Your task to perform on an android device: turn on data saver in the chrome app Image 0: 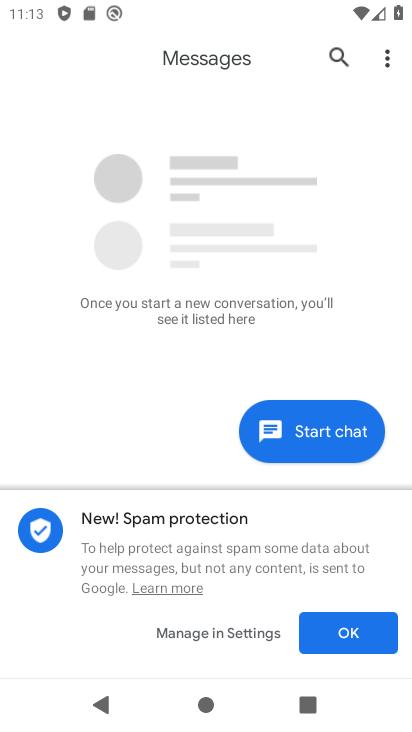
Step 0: press home button
Your task to perform on an android device: turn on data saver in the chrome app Image 1: 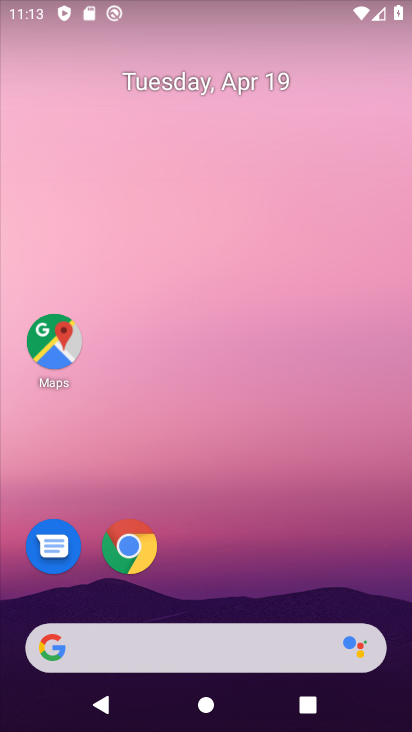
Step 1: drag from (244, 590) to (239, 91)
Your task to perform on an android device: turn on data saver in the chrome app Image 2: 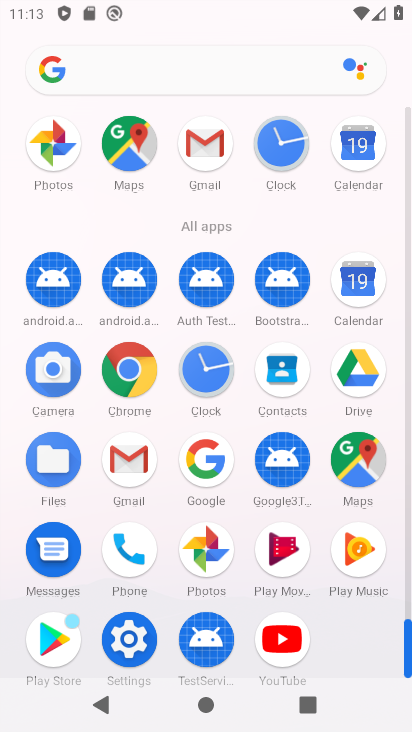
Step 2: click (139, 381)
Your task to perform on an android device: turn on data saver in the chrome app Image 3: 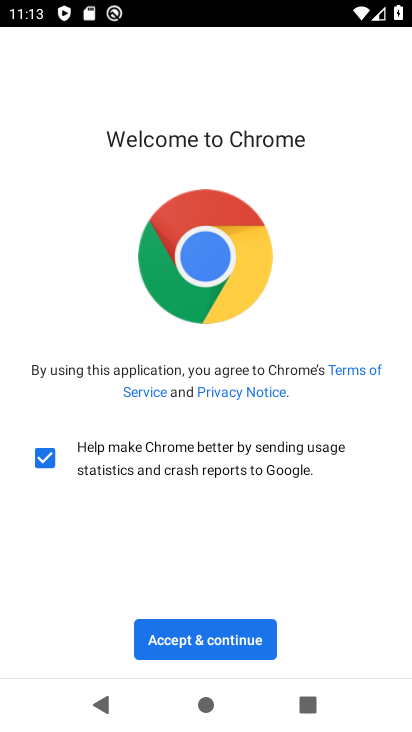
Step 3: click (223, 646)
Your task to perform on an android device: turn on data saver in the chrome app Image 4: 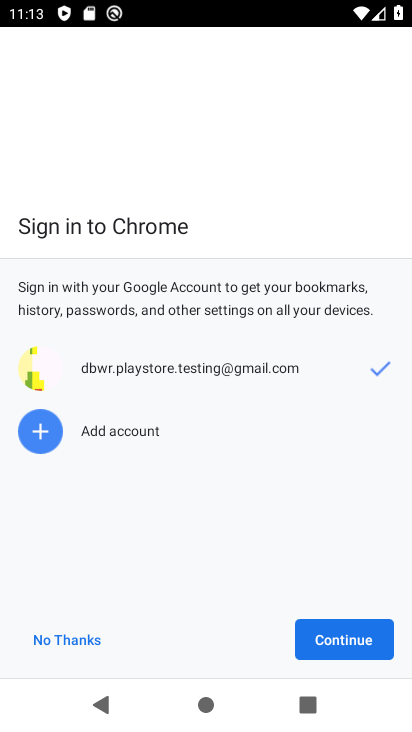
Step 4: click (373, 644)
Your task to perform on an android device: turn on data saver in the chrome app Image 5: 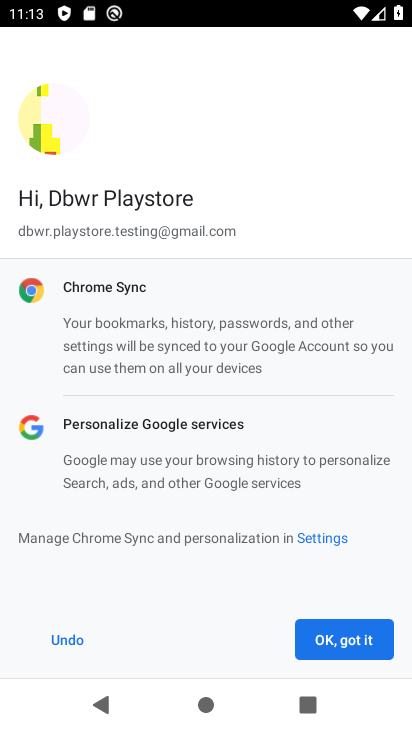
Step 5: click (373, 644)
Your task to perform on an android device: turn on data saver in the chrome app Image 6: 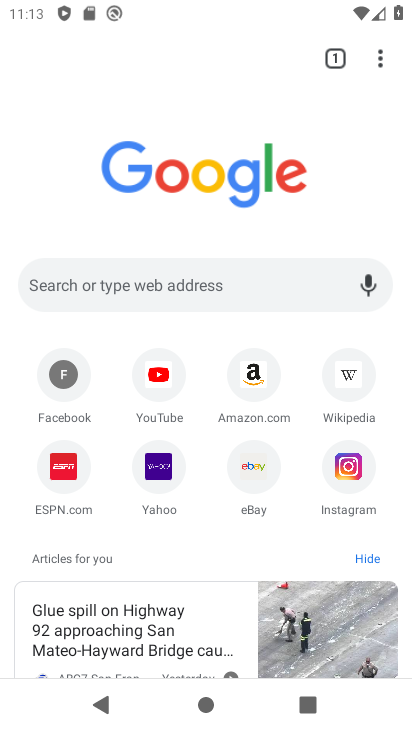
Step 6: drag from (376, 60) to (182, 495)
Your task to perform on an android device: turn on data saver in the chrome app Image 7: 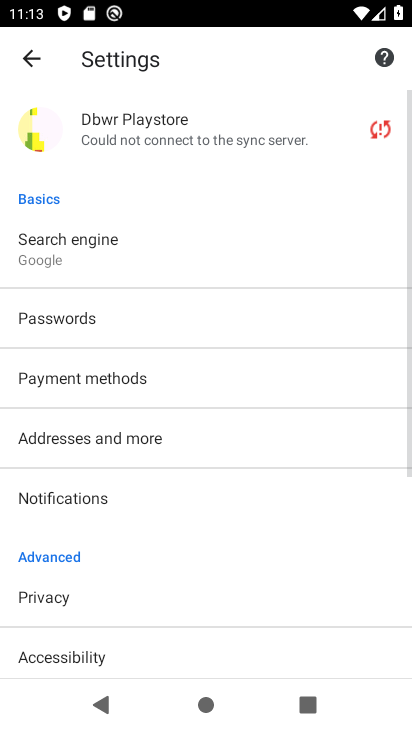
Step 7: drag from (324, 649) to (279, 238)
Your task to perform on an android device: turn on data saver in the chrome app Image 8: 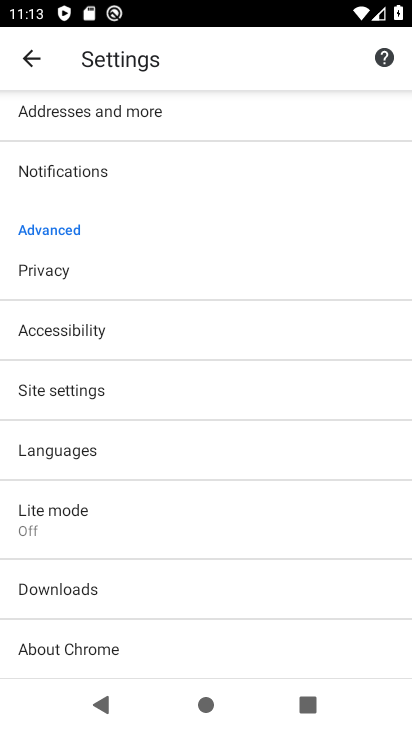
Step 8: click (50, 500)
Your task to perform on an android device: turn on data saver in the chrome app Image 9: 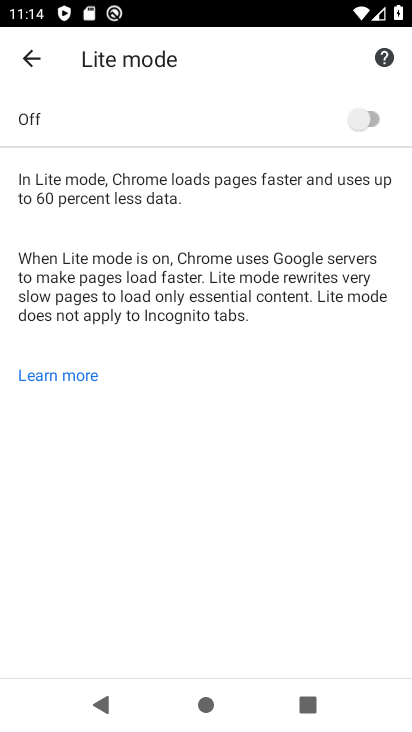
Step 9: click (375, 122)
Your task to perform on an android device: turn on data saver in the chrome app Image 10: 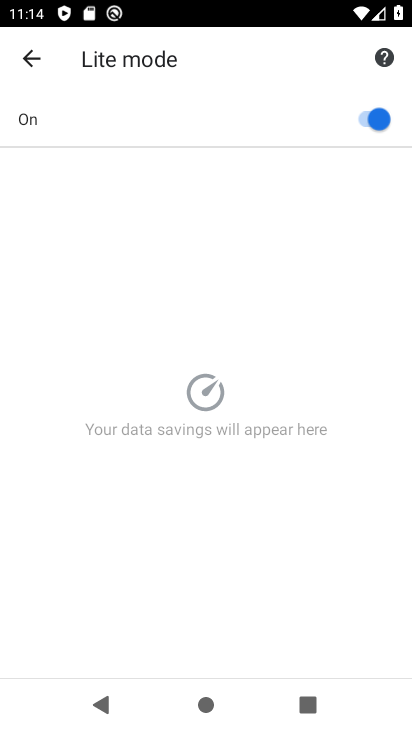
Step 10: task complete